Your task to perform on an android device: Look up the best rated headphones on Amazon. Image 0: 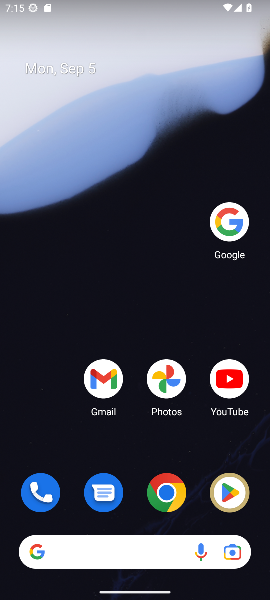
Step 0: click (218, 229)
Your task to perform on an android device: Look up the best rated headphones on Amazon. Image 1: 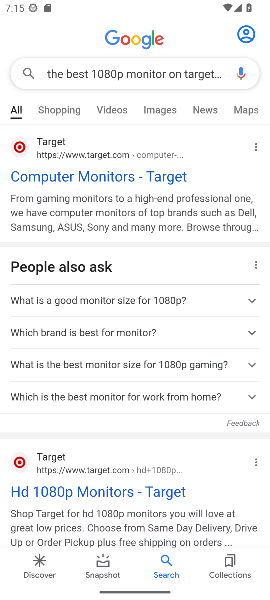
Step 1: click (197, 66)
Your task to perform on an android device: Look up the best rated headphones on Amazon. Image 2: 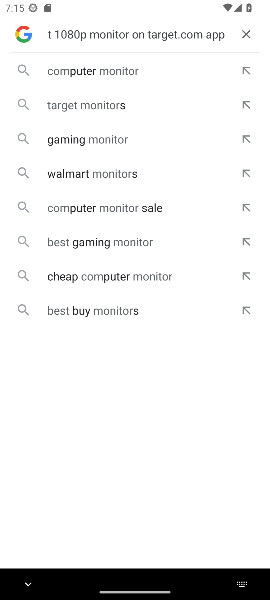
Step 2: click (254, 35)
Your task to perform on an android device: Look up the best rated headphones on Amazon. Image 3: 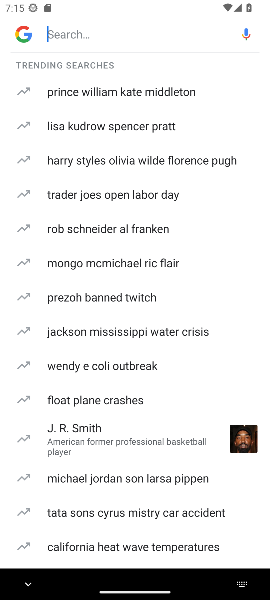
Step 3: click (86, 37)
Your task to perform on an android device: Look up the best rated headphones on Amazon. Image 4: 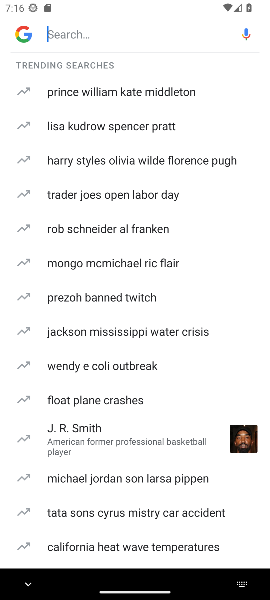
Step 4: type " the best rated headphones on Amazon "
Your task to perform on an android device: Look up the best rated headphones on Amazon. Image 5: 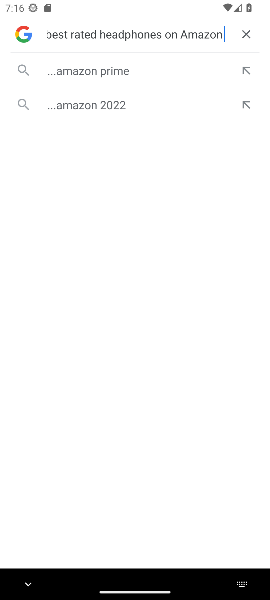
Step 5: click (86, 103)
Your task to perform on an android device: Look up the best rated headphones on Amazon. Image 6: 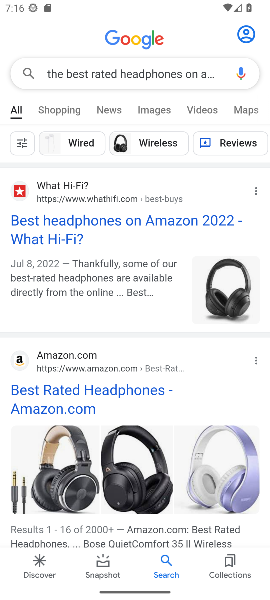
Step 6: drag from (57, 519) to (137, 191)
Your task to perform on an android device: Look up the best rated headphones on Amazon. Image 7: 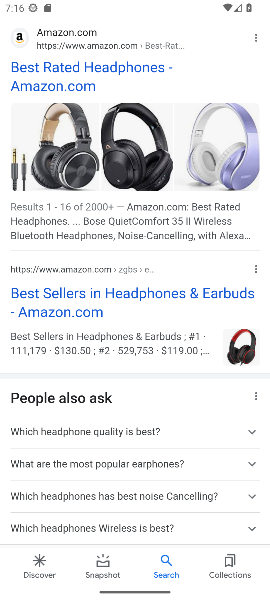
Step 7: click (58, 297)
Your task to perform on an android device: Look up the best rated headphones on Amazon. Image 8: 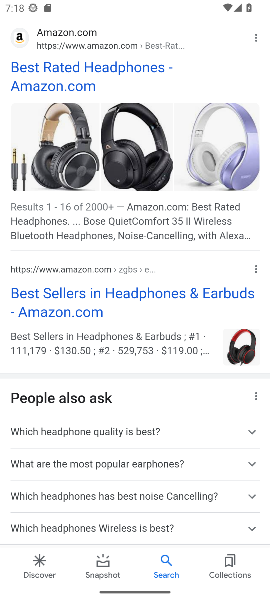
Step 8: task complete